Your task to perform on an android device: Add "razer naga" to the cart on costco Image 0: 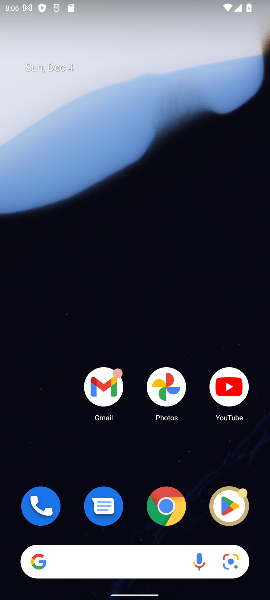
Step 0: click (172, 523)
Your task to perform on an android device: Add "razer naga" to the cart on costco Image 1: 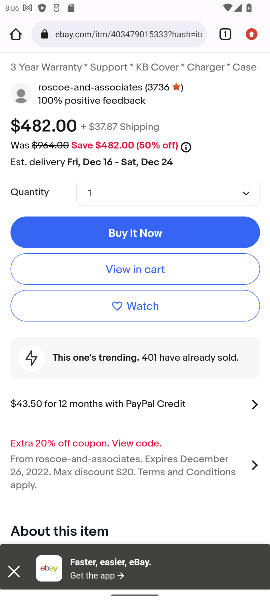
Step 1: click (174, 27)
Your task to perform on an android device: Add "razer naga" to the cart on costco Image 2: 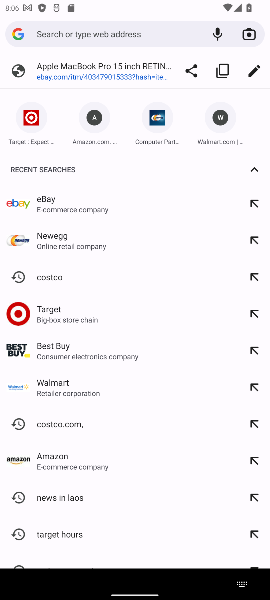
Step 2: click (21, 273)
Your task to perform on an android device: Add "razer naga" to the cart on costco Image 3: 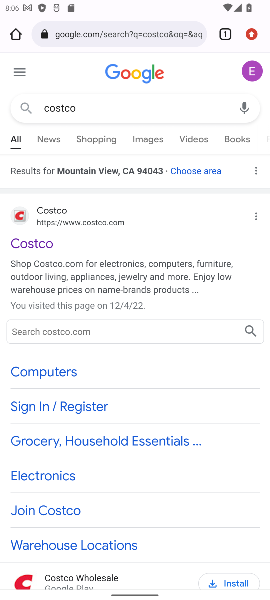
Step 3: click (37, 241)
Your task to perform on an android device: Add "razer naga" to the cart on costco Image 4: 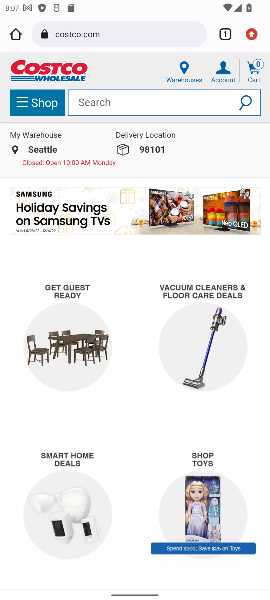
Step 4: click (95, 107)
Your task to perform on an android device: Add "razer naga" to the cart on costco Image 5: 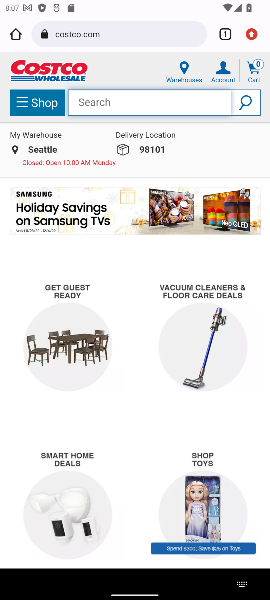
Step 5: type "razer naga"
Your task to perform on an android device: Add "razer naga" to the cart on costco Image 6: 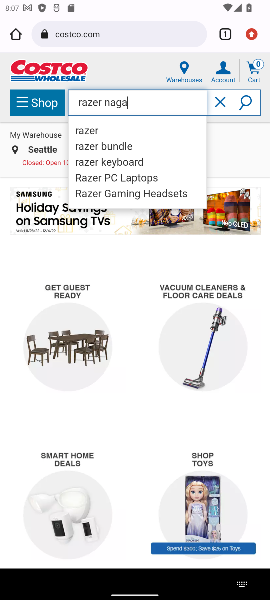
Step 6: click (250, 103)
Your task to perform on an android device: Add "razer naga" to the cart on costco Image 7: 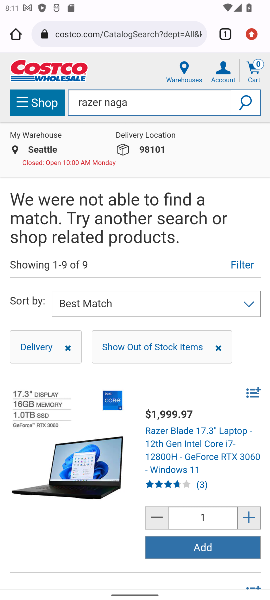
Step 7: task complete